Your task to perform on an android device: Open settings Image 0: 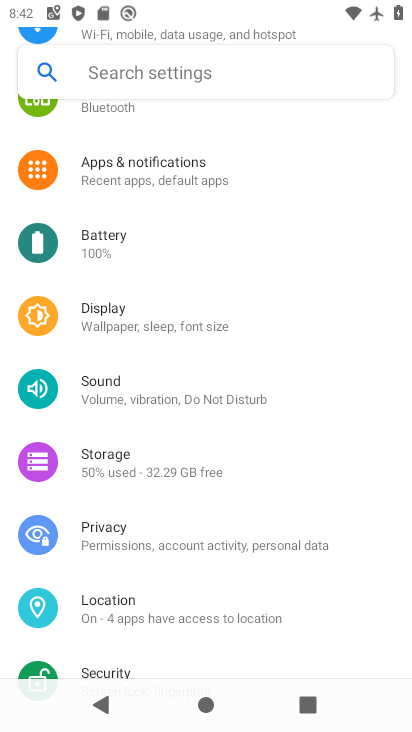
Step 0: press home button
Your task to perform on an android device: Open settings Image 1: 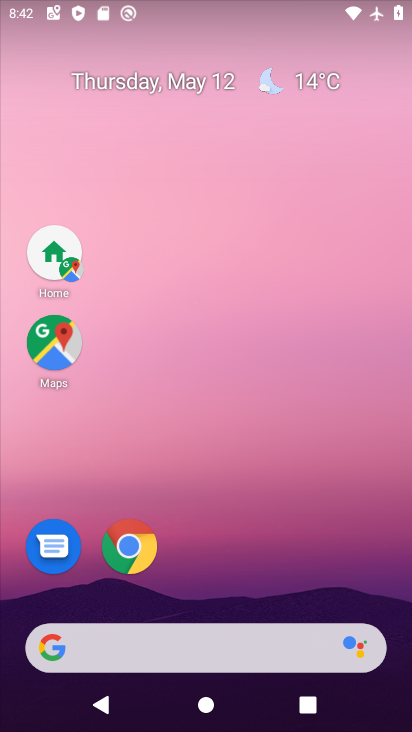
Step 1: drag from (65, 263) to (102, 325)
Your task to perform on an android device: Open settings Image 2: 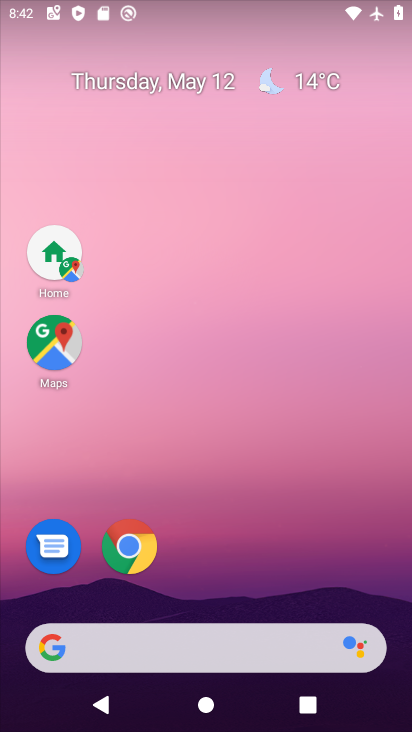
Step 2: drag from (62, 261) to (59, 372)
Your task to perform on an android device: Open settings Image 3: 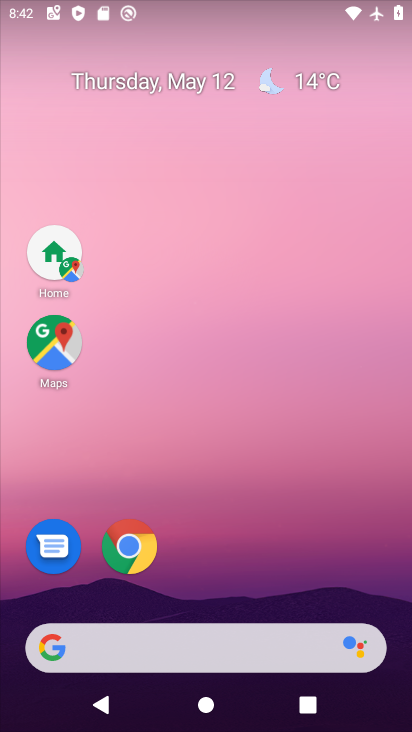
Step 3: drag from (245, 637) to (397, 168)
Your task to perform on an android device: Open settings Image 4: 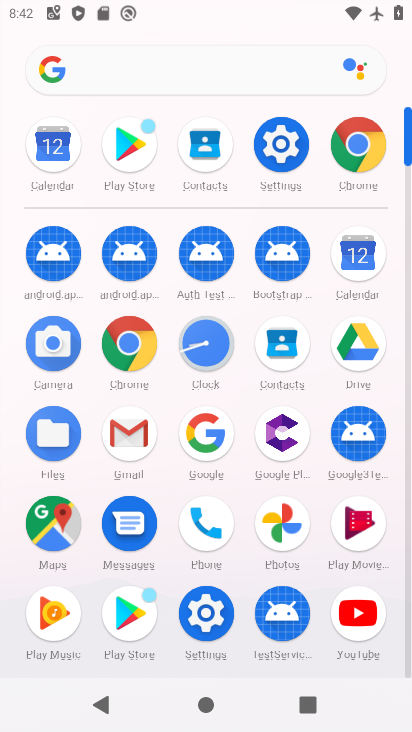
Step 4: click (301, 133)
Your task to perform on an android device: Open settings Image 5: 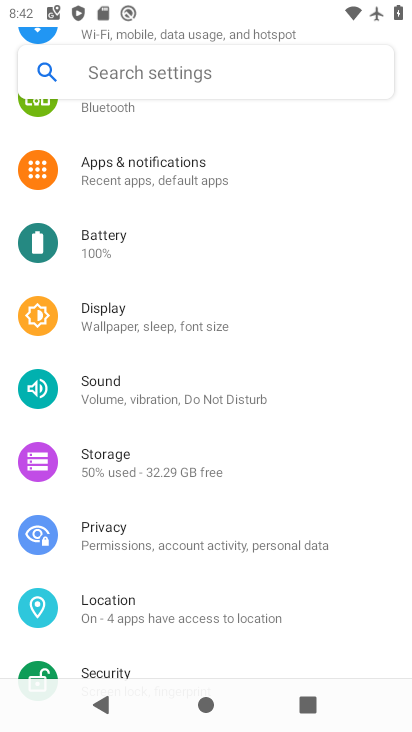
Step 5: task complete